Your task to perform on an android device: open chrome and create a bookmark for the current page Image 0: 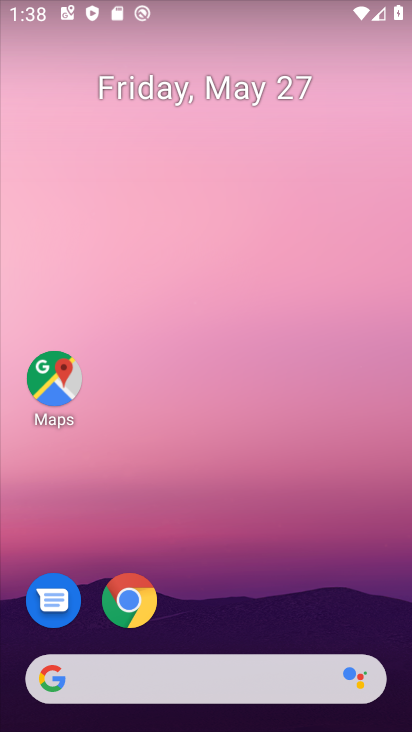
Step 0: click (129, 603)
Your task to perform on an android device: open chrome and create a bookmark for the current page Image 1: 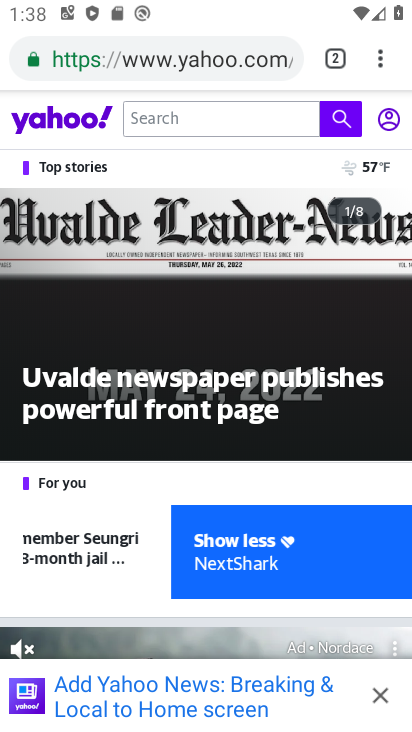
Step 1: click (380, 64)
Your task to perform on an android device: open chrome and create a bookmark for the current page Image 2: 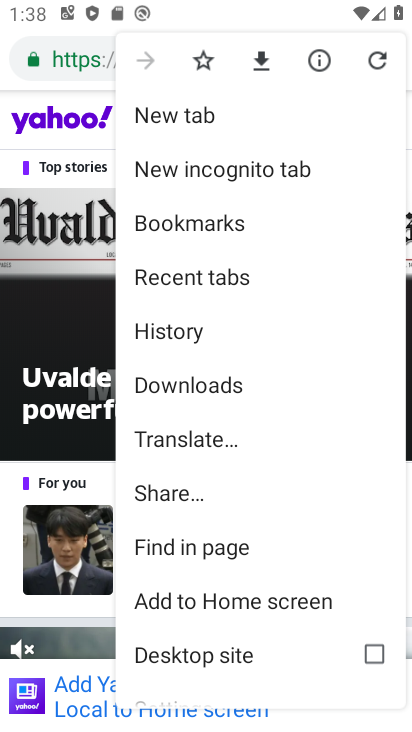
Step 2: click (206, 58)
Your task to perform on an android device: open chrome and create a bookmark for the current page Image 3: 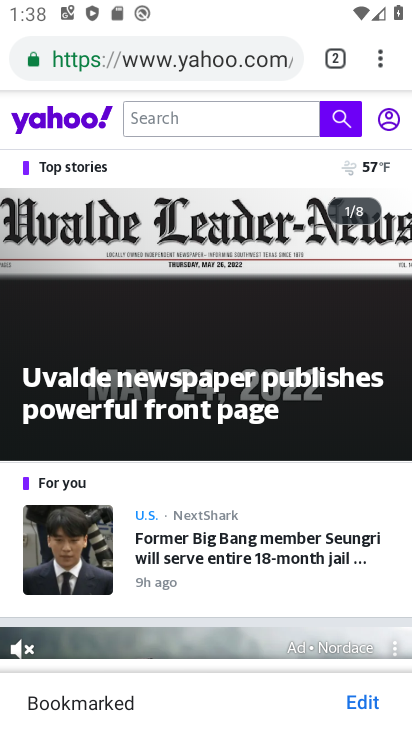
Step 3: task complete